Your task to perform on an android device: check google app version Image 0: 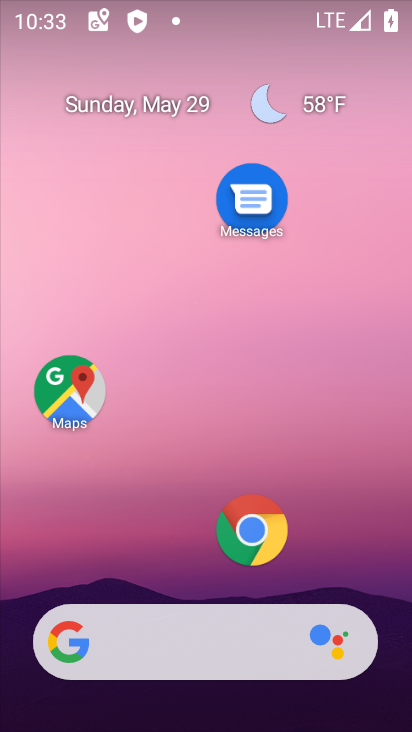
Step 0: click (78, 651)
Your task to perform on an android device: check google app version Image 1: 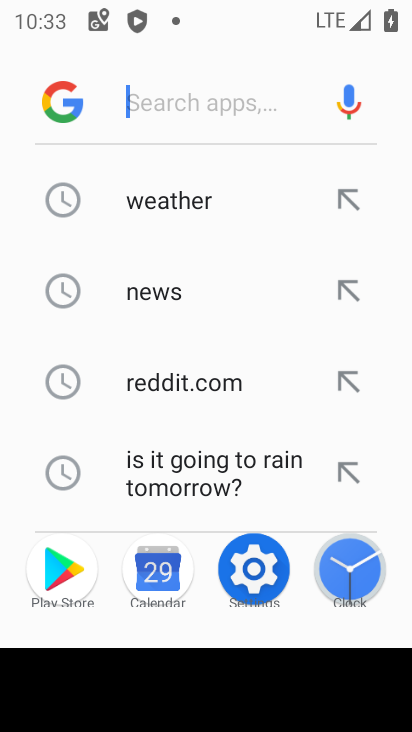
Step 1: click (63, 100)
Your task to perform on an android device: check google app version Image 2: 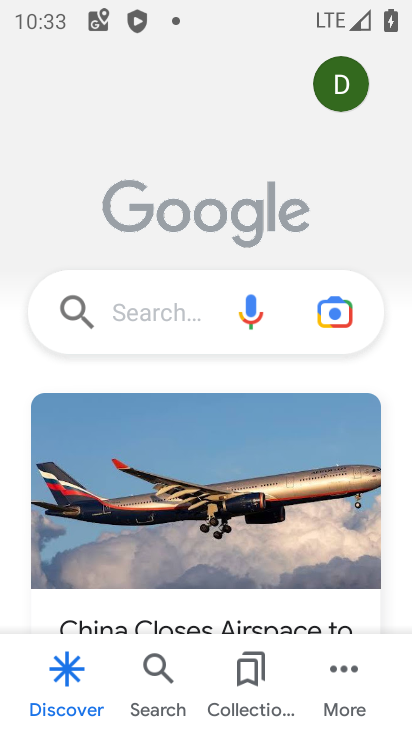
Step 2: click (347, 677)
Your task to perform on an android device: check google app version Image 3: 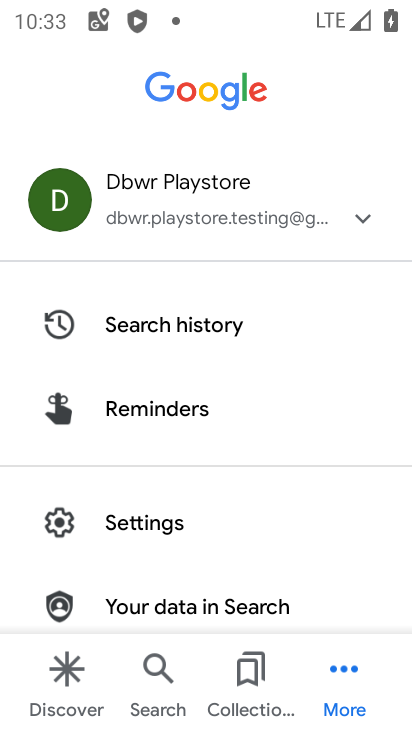
Step 3: click (123, 526)
Your task to perform on an android device: check google app version Image 4: 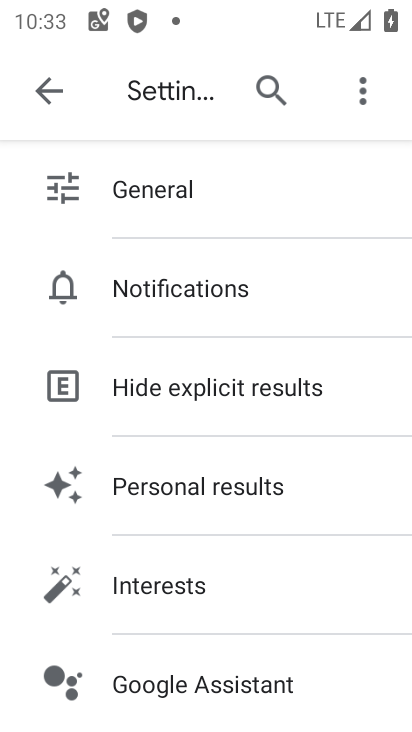
Step 4: drag from (163, 657) to (236, 231)
Your task to perform on an android device: check google app version Image 5: 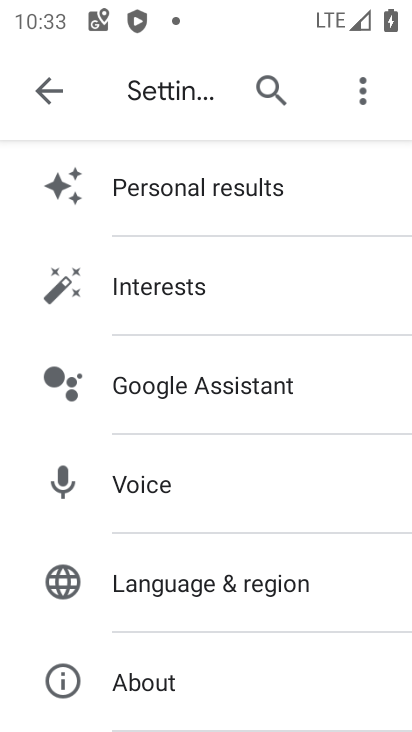
Step 5: drag from (170, 646) to (202, 350)
Your task to perform on an android device: check google app version Image 6: 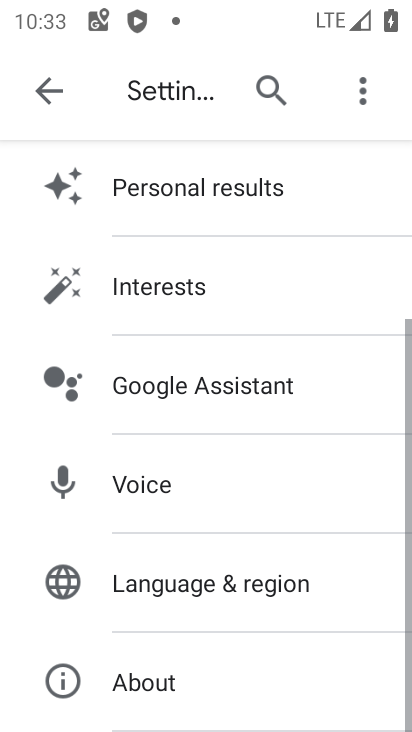
Step 6: click (198, 705)
Your task to perform on an android device: check google app version Image 7: 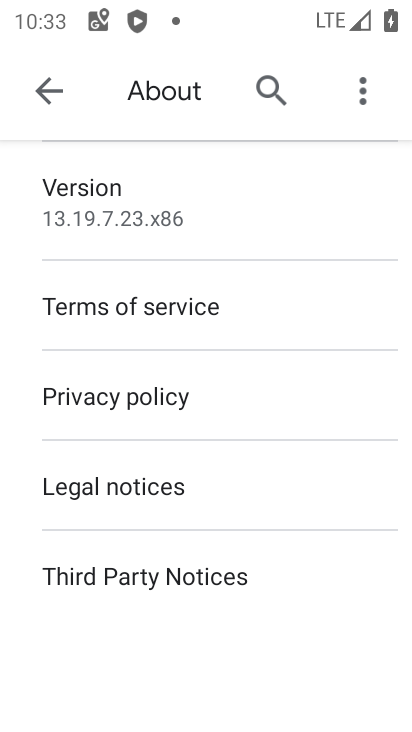
Step 7: click (170, 222)
Your task to perform on an android device: check google app version Image 8: 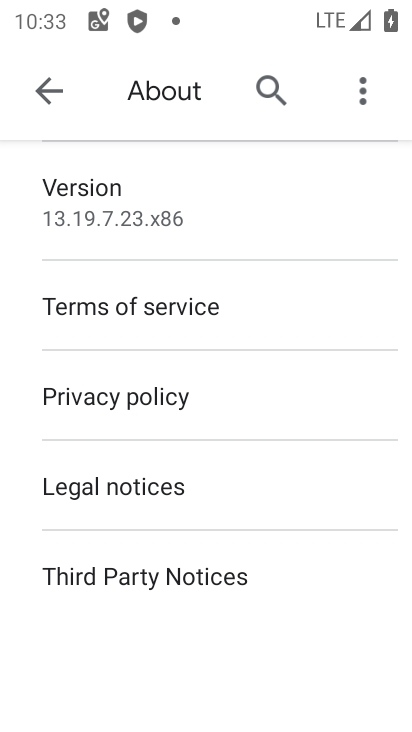
Step 8: task complete